Your task to perform on an android device: remove spam from my inbox in the gmail app Image 0: 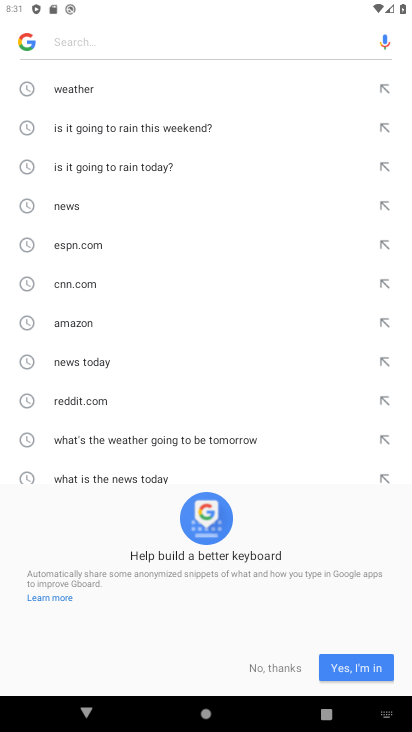
Step 0: click (259, 668)
Your task to perform on an android device: remove spam from my inbox in the gmail app Image 1: 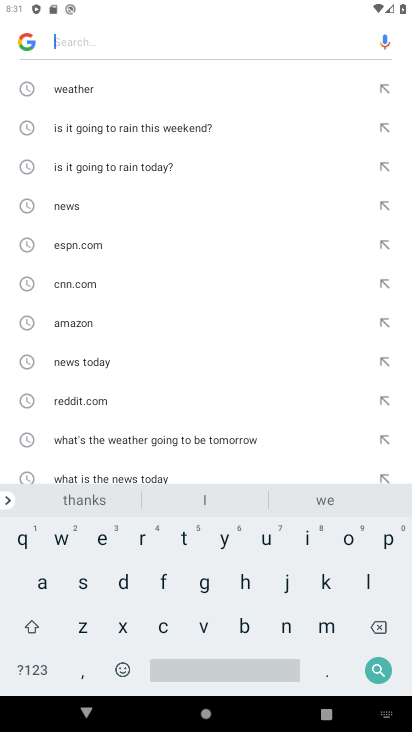
Step 1: press back button
Your task to perform on an android device: remove spam from my inbox in the gmail app Image 2: 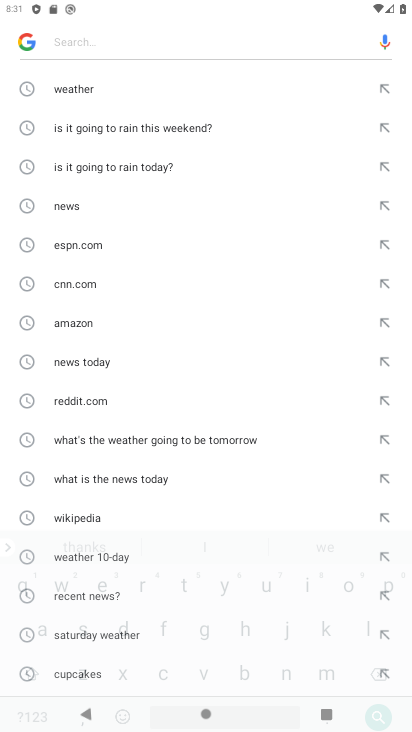
Step 2: press back button
Your task to perform on an android device: remove spam from my inbox in the gmail app Image 3: 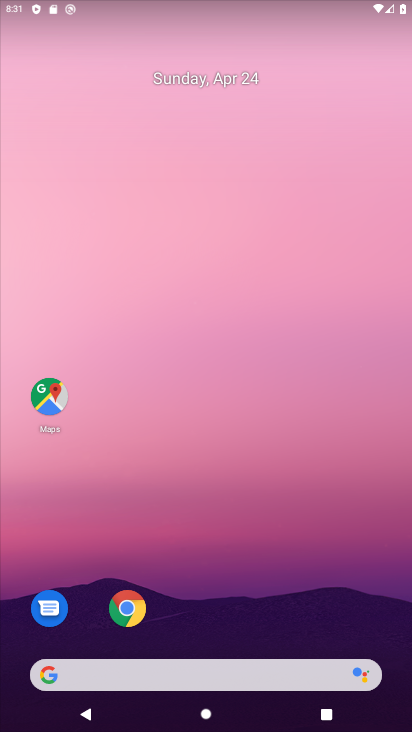
Step 3: drag from (244, 698) to (271, 251)
Your task to perform on an android device: remove spam from my inbox in the gmail app Image 4: 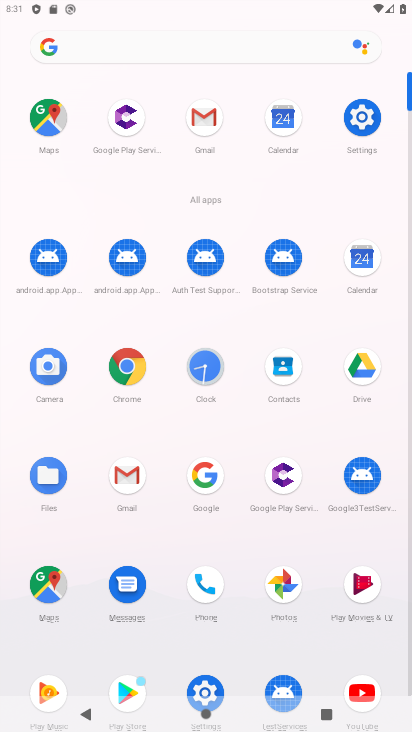
Step 4: click (200, 124)
Your task to perform on an android device: remove spam from my inbox in the gmail app Image 5: 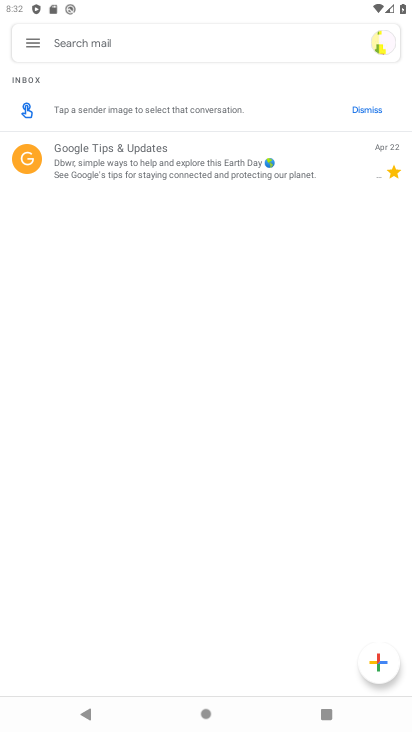
Step 5: click (32, 47)
Your task to perform on an android device: remove spam from my inbox in the gmail app Image 6: 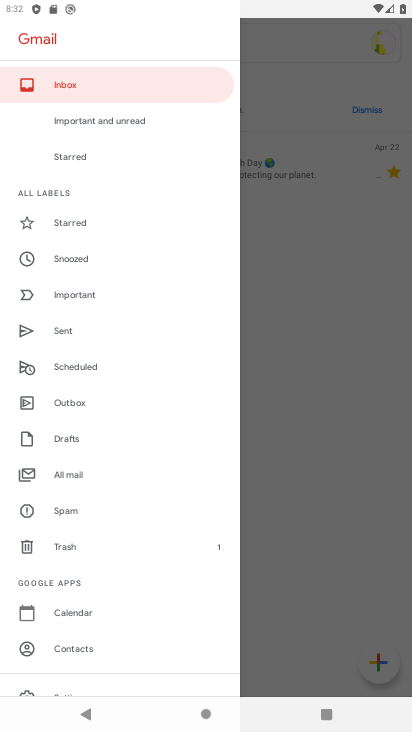
Step 6: click (70, 512)
Your task to perform on an android device: remove spam from my inbox in the gmail app Image 7: 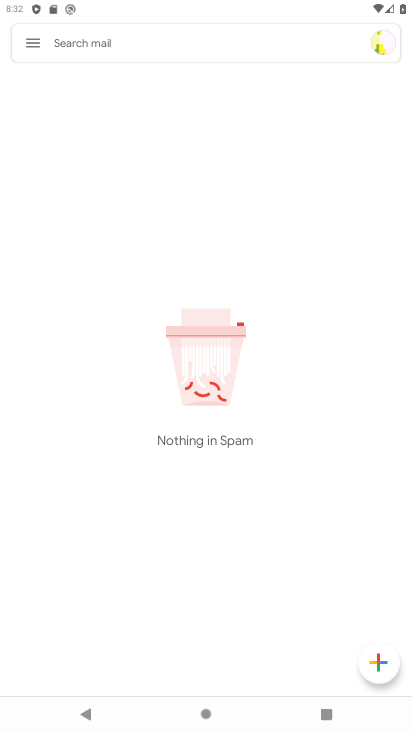
Step 7: task complete